Your task to perform on an android device: turn on improve location accuracy Image 0: 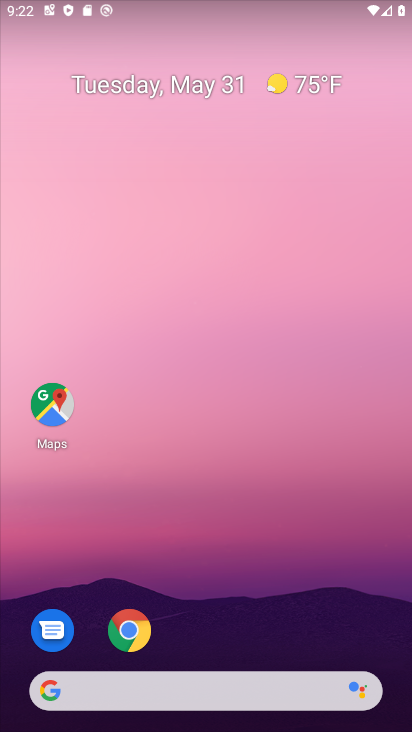
Step 0: drag from (239, 661) to (313, 214)
Your task to perform on an android device: turn on improve location accuracy Image 1: 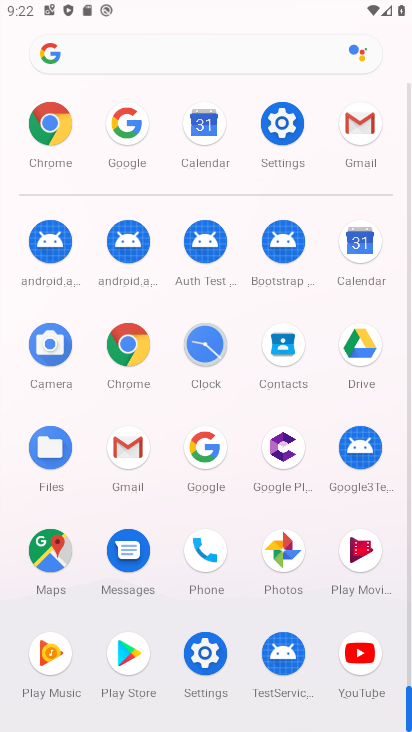
Step 1: click (289, 154)
Your task to perform on an android device: turn on improve location accuracy Image 2: 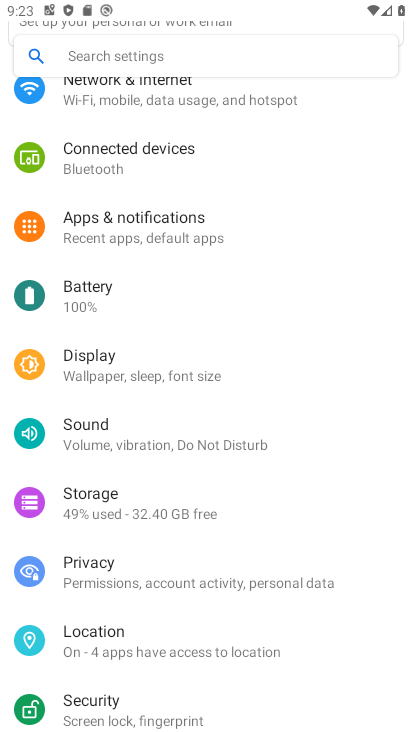
Step 2: click (181, 641)
Your task to perform on an android device: turn on improve location accuracy Image 3: 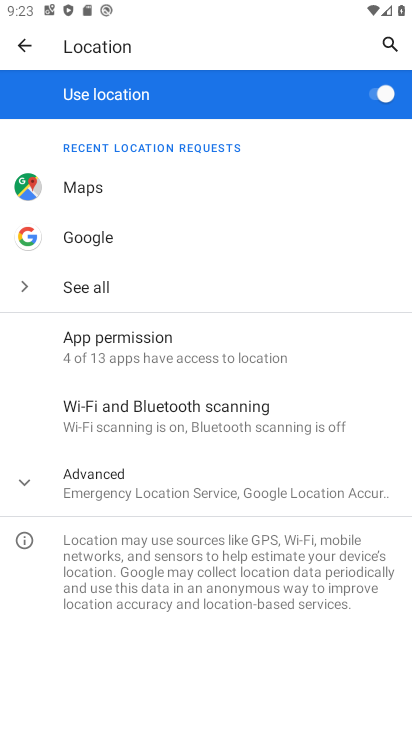
Step 3: click (172, 489)
Your task to perform on an android device: turn on improve location accuracy Image 4: 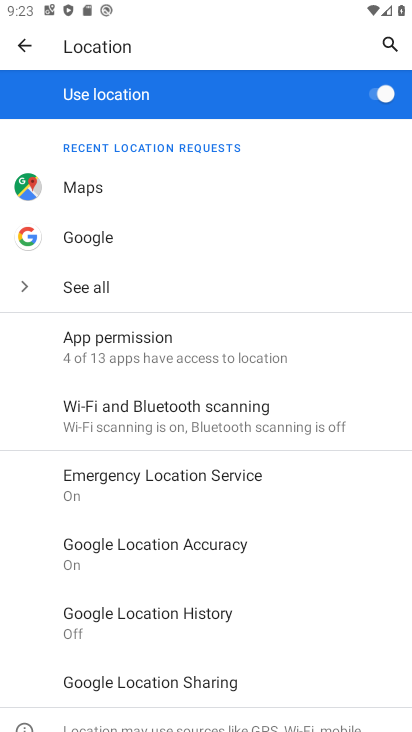
Step 4: drag from (153, 589) to (189, 361)
Your task to perform on an android device: turn on improve location accuracy Image 5: 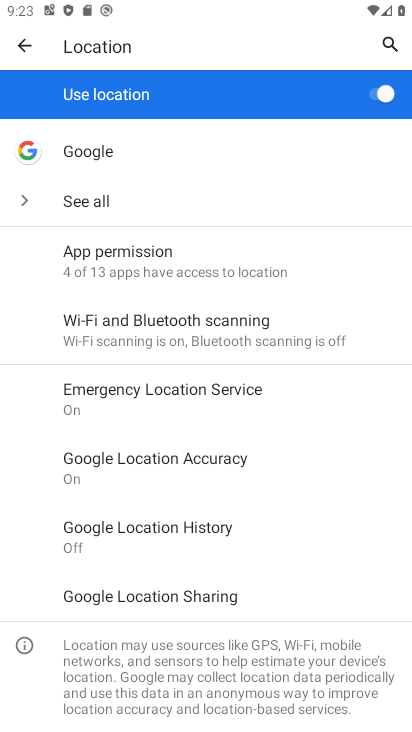
Step 5: click (213, 462)
Your task to perform on an android device: turn on improve location accuracy Image 6: 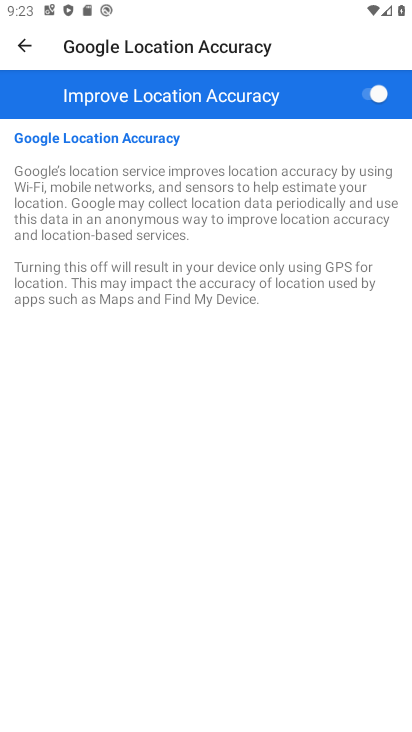
Step 6: task complete